Your task to perform on an android device: check battery use Image 0: 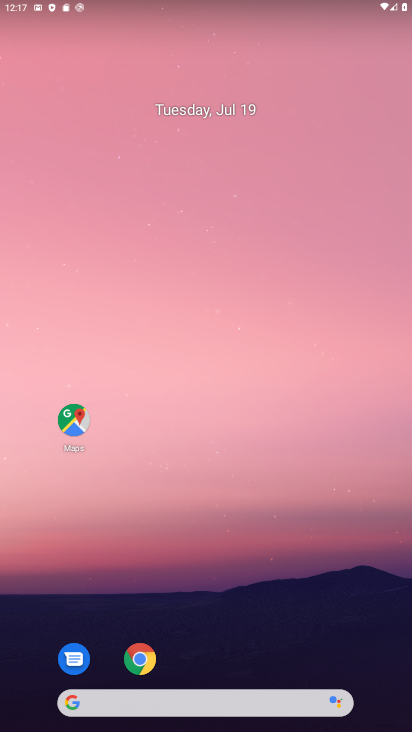
Step 0: drag from (209, 650) to (219, 30)
Your task to perform on an android device: check battery use Image 1: 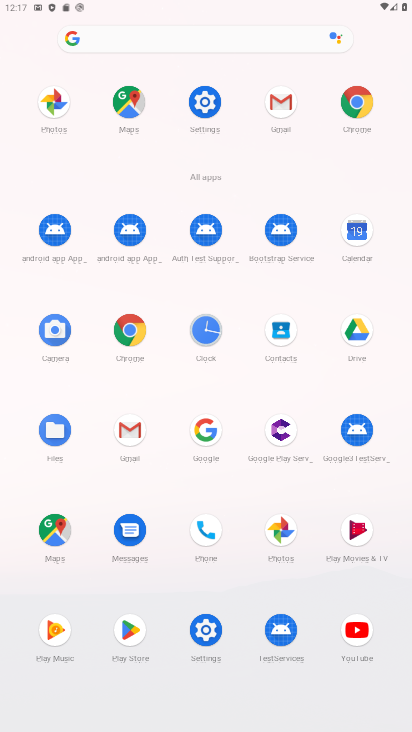
Step 1: click (211, 104)
Your task to perform on an android device: check battery use Image 2: 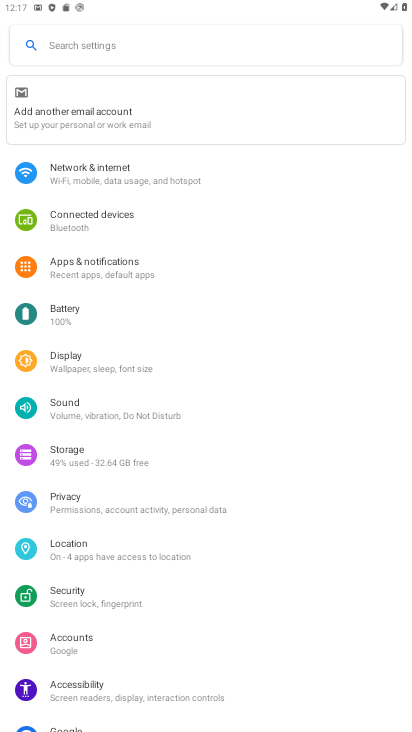
Step 2: click (83, 318)
Your task to perform on an android device: check battery use Image 3: 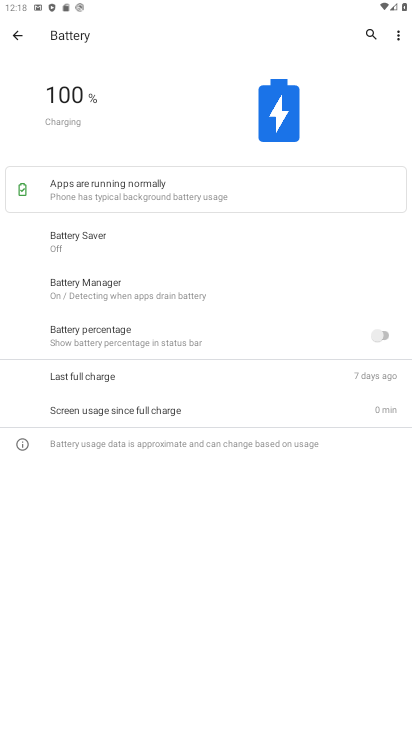
Step 3: click (395, 32)
Your task to perform on an android device: check battery use Image 4: 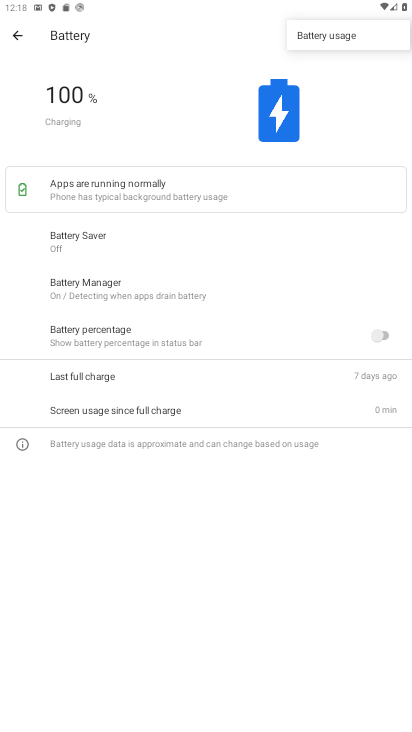
Step 4: click (325, 46)
Your task to perform on an android device: check battery use Image 5: 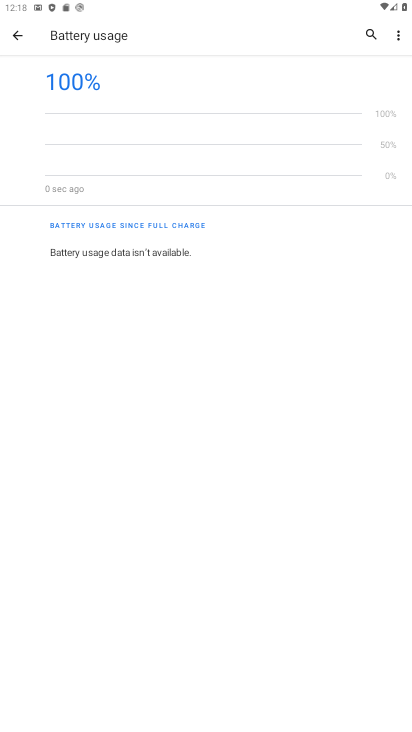
Step 5: task complete